Your task to perform on an android device: turn on priority inbox in the gmail app Image 0: 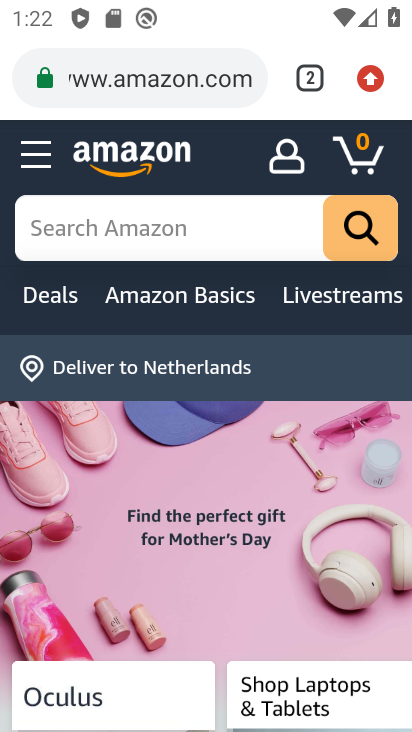
Step 0: press home button
Your task to perform on an android device: turn on priority inbox in the gmail app Image 1: 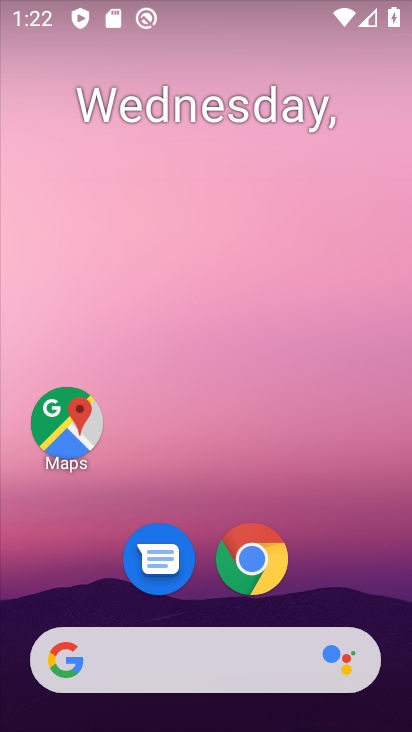
Step 1: drag from (337, 571) to (325, 142)
Your task to perform on an android device: turn on priority inbox in the gmail app Image 2: 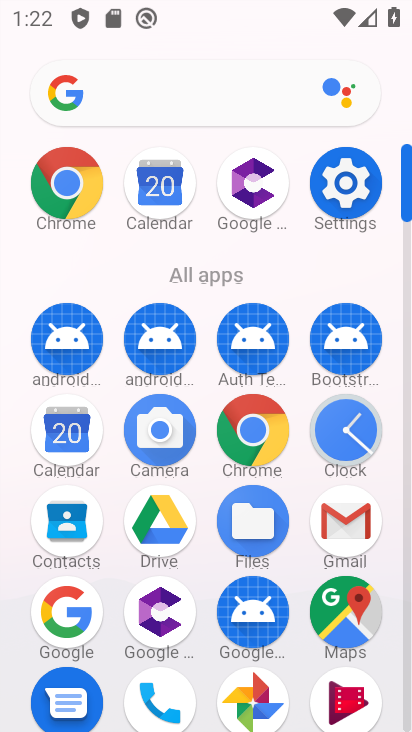
Step 2: click (341, 521)
Your task to perform on an android device: turn on priority inbox in the gmail app Image 3: 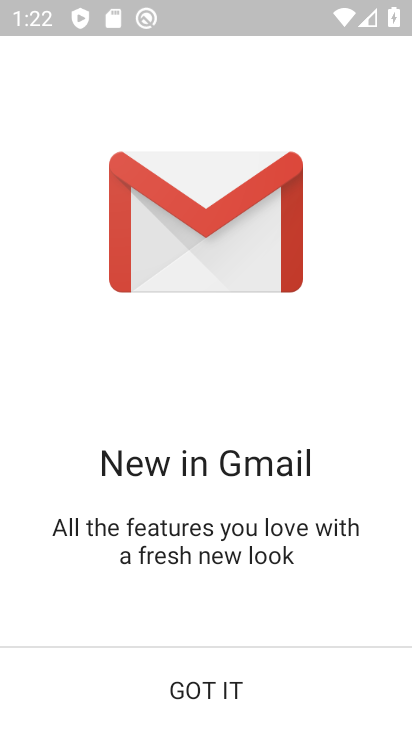
Step 3: click (180, 702)
Your task to perform on an android device: turn on priority inbox in the gmail app Image 4: 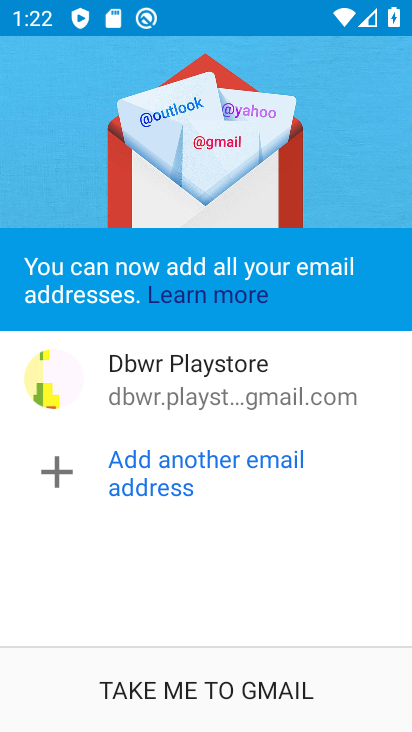
Step 4: click (180, 693)
Your task to perform on an android device: turn on priority inbox in the gmail app Image 5: 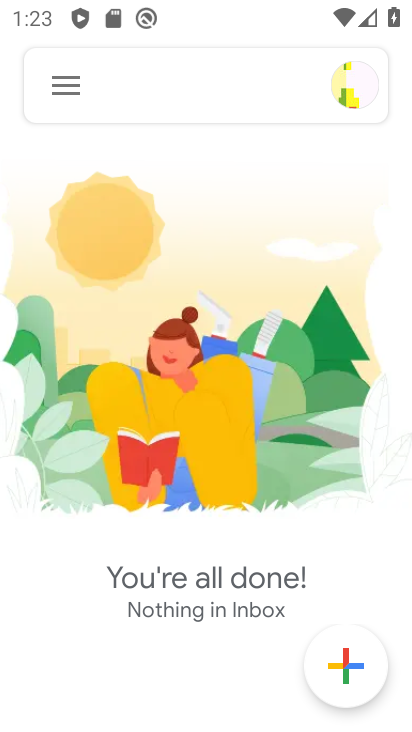
Step 5: click (71, 86)
Your task to perform on an android device: turn on priority inbox in the gmail app Image 6: 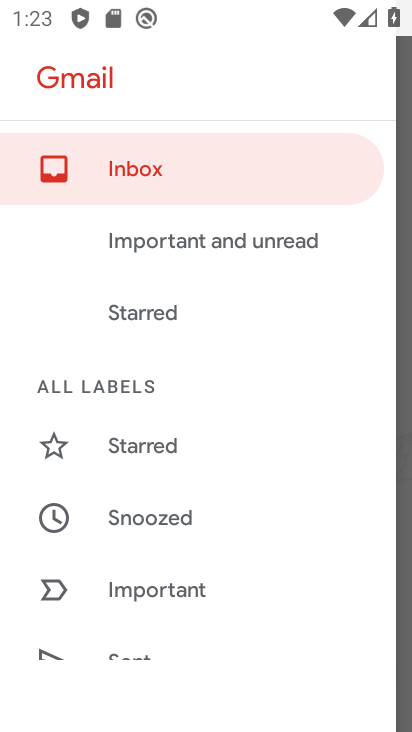
Step 6: drag from (237, 542) to (269, 153)
Your task to perform on an android device: turn on priority inbox in the gmail app Image 7: 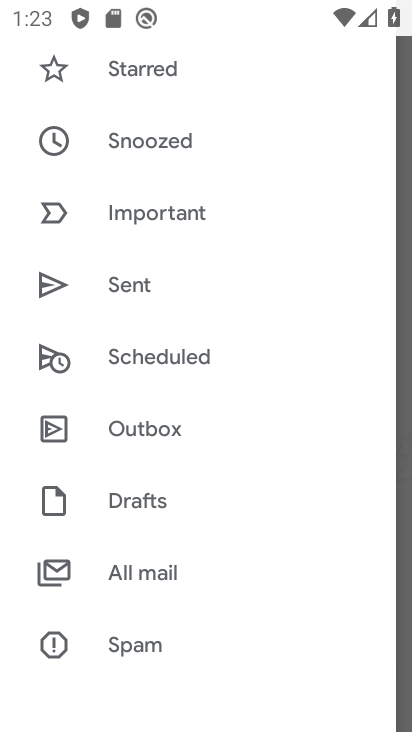
Step 7: drag from (196, 610) to (276, 243)
Your task to perform on an android device: turn on priority inbox in the gmail app Image 8: 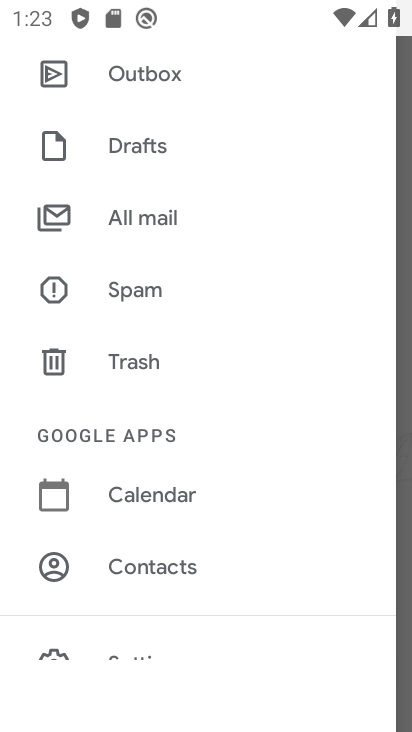
Step 8: drag from (216, 620) to (252, 260)
Your task to perform on an android device: turn on priority inbox in the gmail app Image 9: 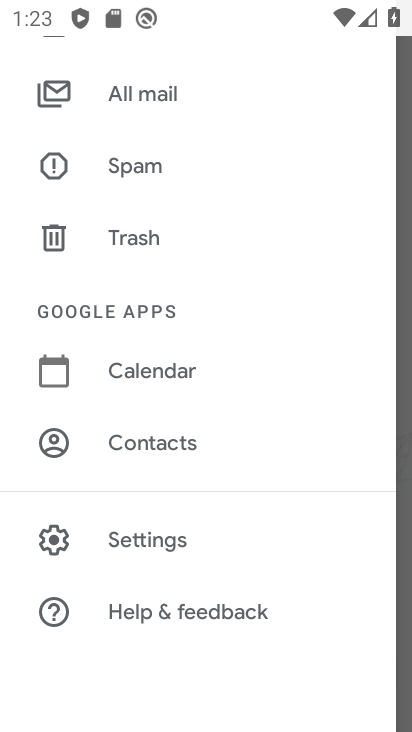
Step 9: click (133, 537)
Your task to perform on an android device: turn on priority inbox in the gmail app Image 10: 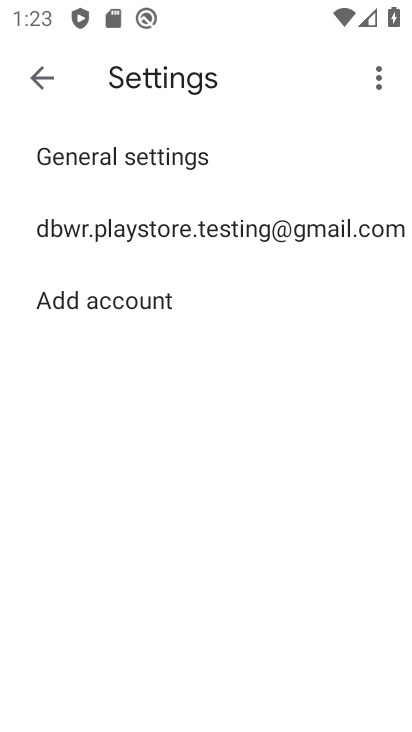
Step 10: click (240, 223)
Your task to perform on an android device: turn on priority inbox in the gmail app Image 11: 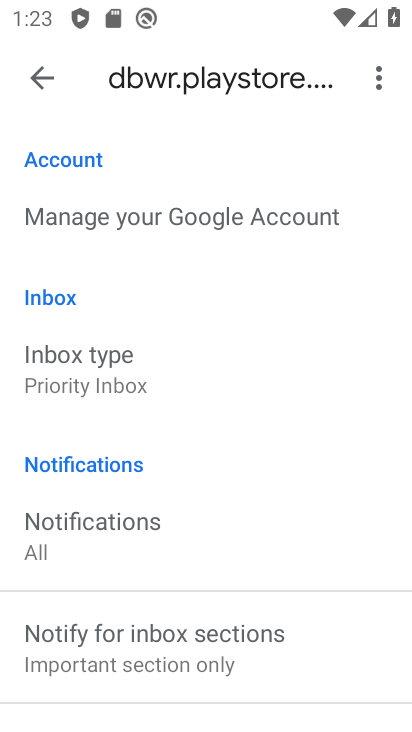
Step 11: click (70, 346)
Your task to perform on an android device: turn on priority inbox in the gmail app Image 12: 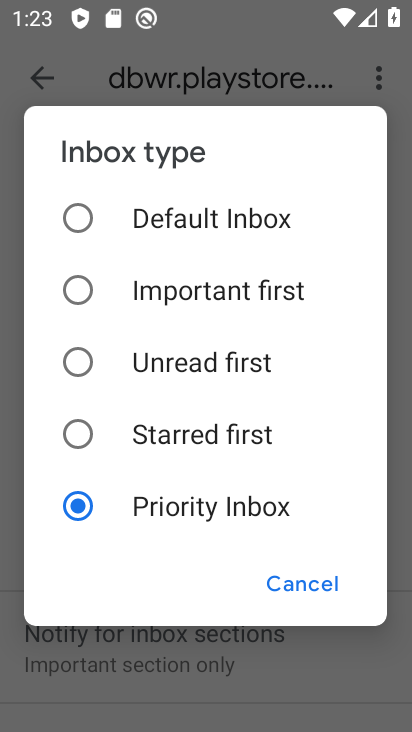
Step 12: click (247, 498)
Your task to perform on an android device: turn on priority inbox in the gmail app Image 13: 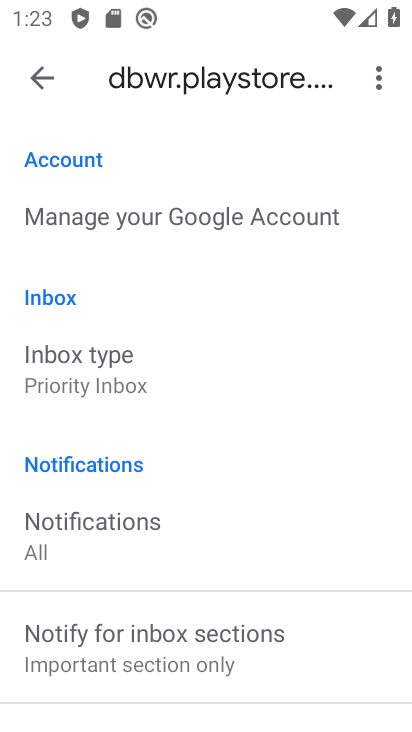
Step 13: task complete